Your task to perform on an android device: check storage Image 0: 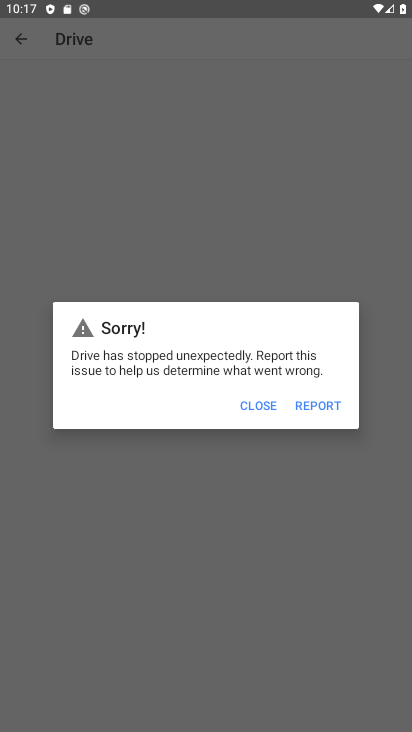
Step 0: press home button
Your task to perform on an android device: check storage Image 1: 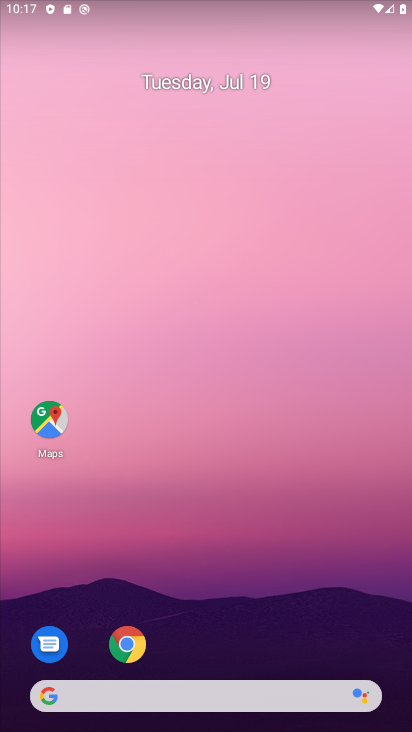
Step 1: drag from (208, 704) to (233, 38)
Your task to perform on an android device: check storage Image 2: 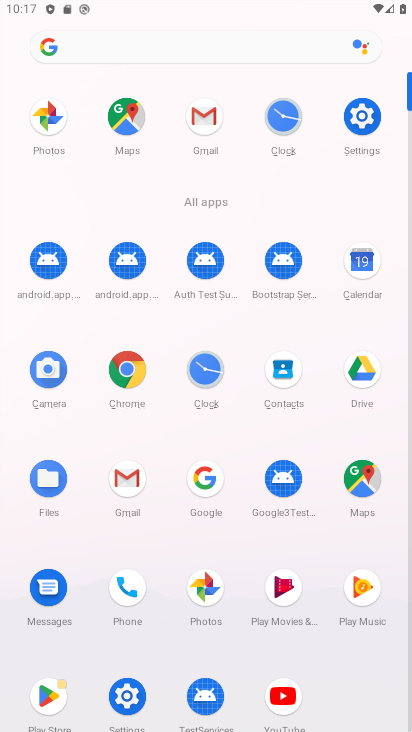
Step 2: click (351, 141)
Your task to perform on an android device: check storage Image 3: 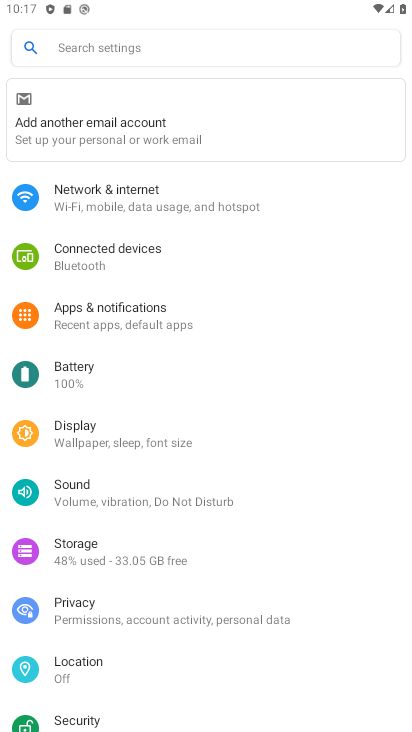
Step 3: click (107, 558)
Your task to perform on an android device: check storage Image 4: 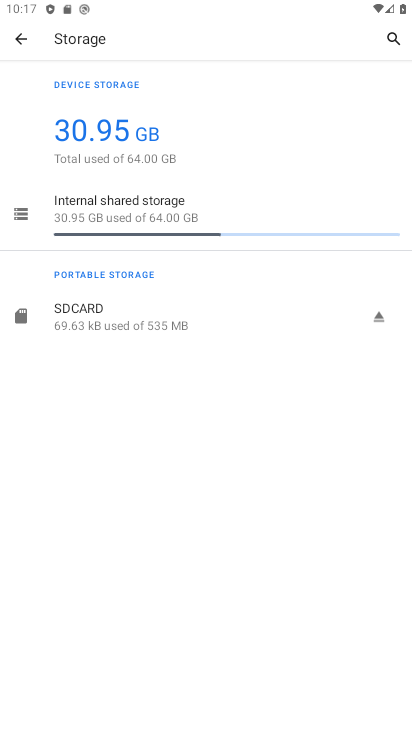
Step 4: task complete